Your task to perform on an android device: Open Youtube and go to "Your channel" Image 0: 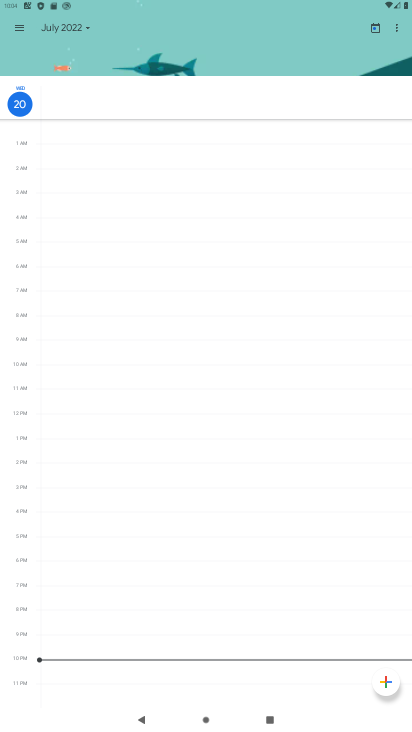
Step 0: press home button
Your task to perform on an android device: Open Youtube and go to "Your channel" Image 1: 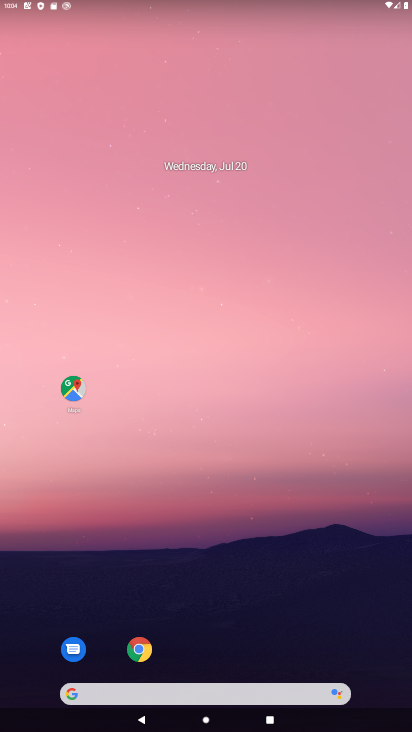
Step 1: drag from (255, 677) to (260, 70)
Your task to perform on an android device: Open Youtube and go to "Your channel" Image 2: 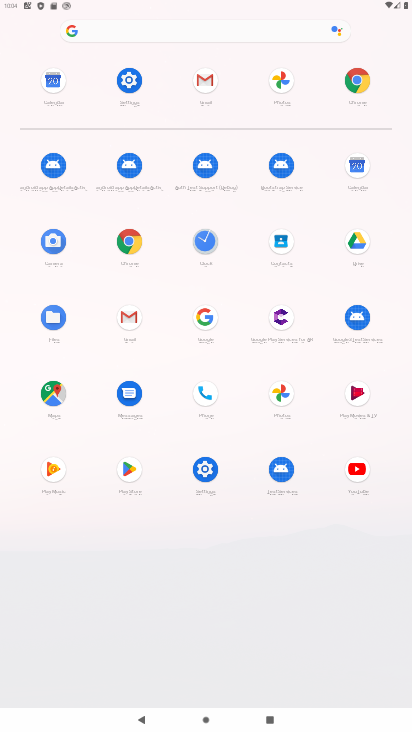
Step 2: click (365, 478)
Your task to perform on an android device: Open Youtube and go to "Your channel" Image 3: 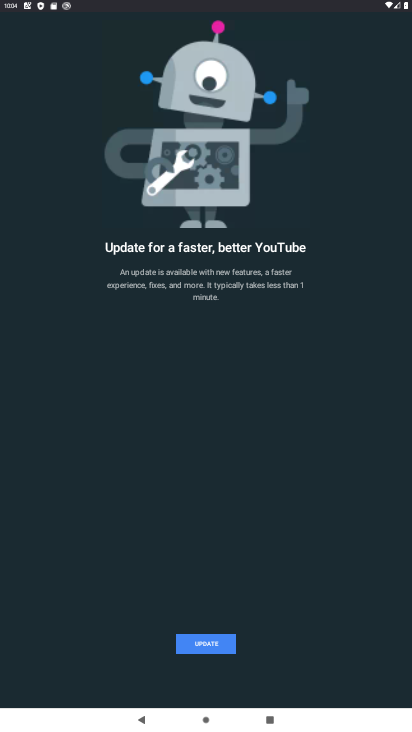
Step 3: click (215, 643)
Your task to perform on an android device: Open Youtube and go to "Your channel" Image 4: 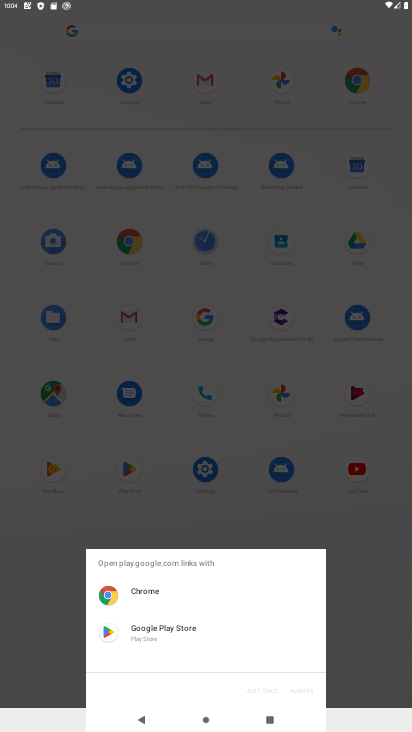
Step 4: click (144, 640)
Your task to perform on an android device: Open Youtube and go to "Your channel" Image 5: 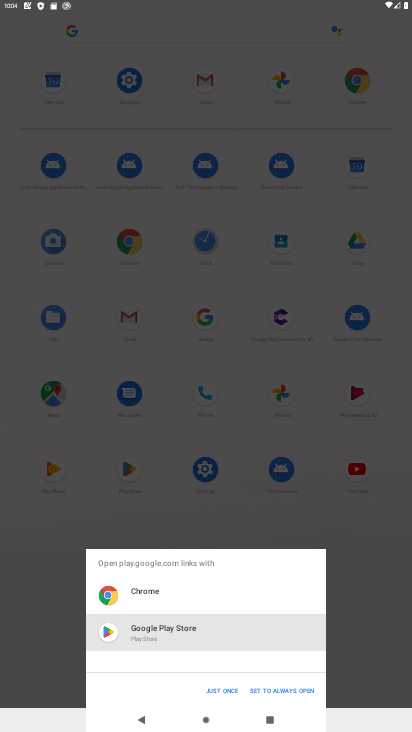
Step 5: click (212, 687)
Your task to perform on an android device: Open Youtube and go to "Your channel" Image 6: 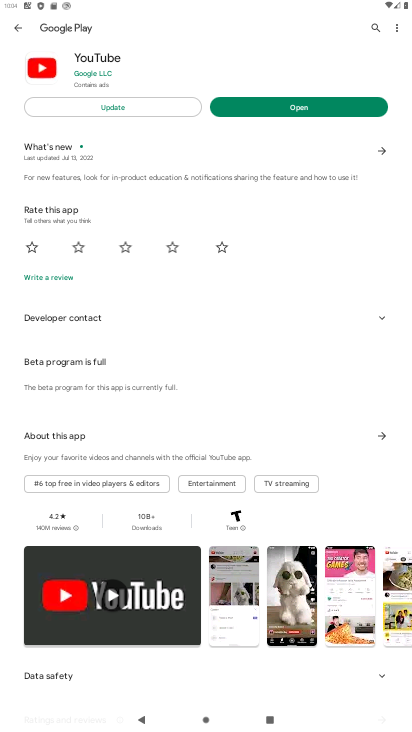
Step 6: click (153, 102)
Your task to perform on an android device: Open Youtube and go to "Your channel" Image 7: 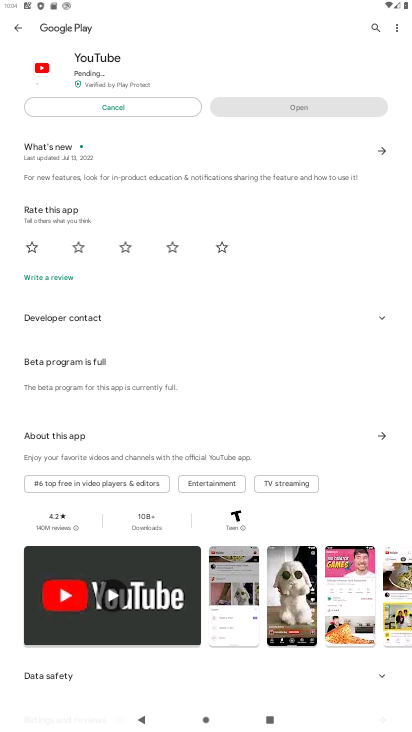
Step 7: task complete